Your task to perform on an android device: turn on javascript in the chrome app Image 0: 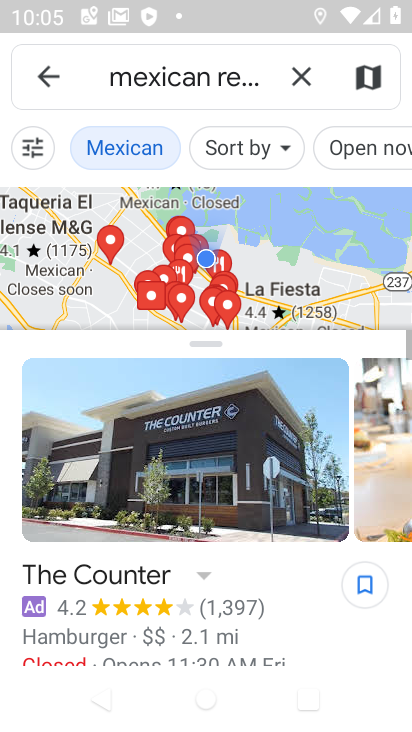
Step 0: press home button
Your task to perform on an android device: turn on javascript in the chrome app Image 1: 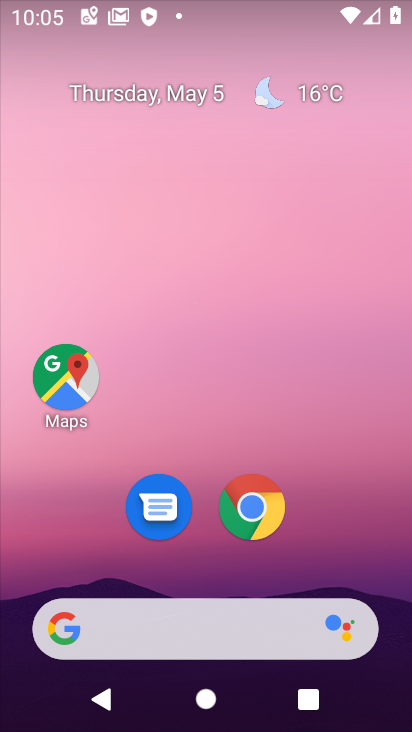
Step 1: click (243, 513)
Your task to perform on an android device: turn on javascript in the chrome app Image 2: 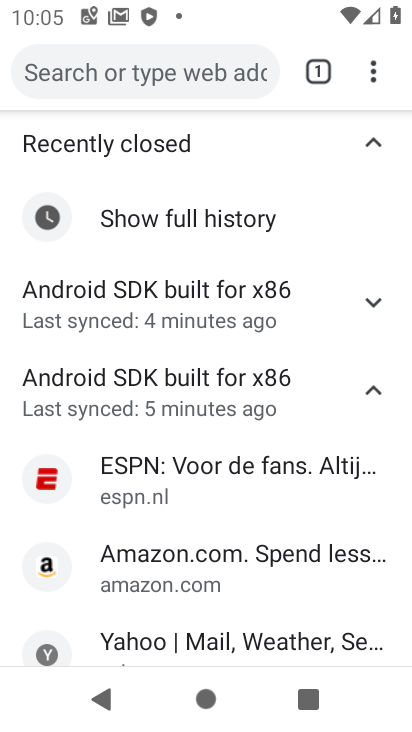
Step 2: click (377, 73)
Your task to perform on an android device: turn on javascript in the chrome app Image 3: 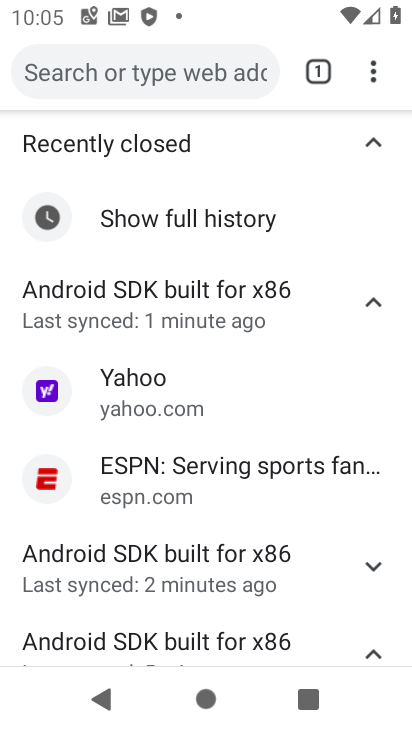
Step 3: click (370, 80)
Your task to perform on an android device: turn on javascript in the chrome app Image 4: 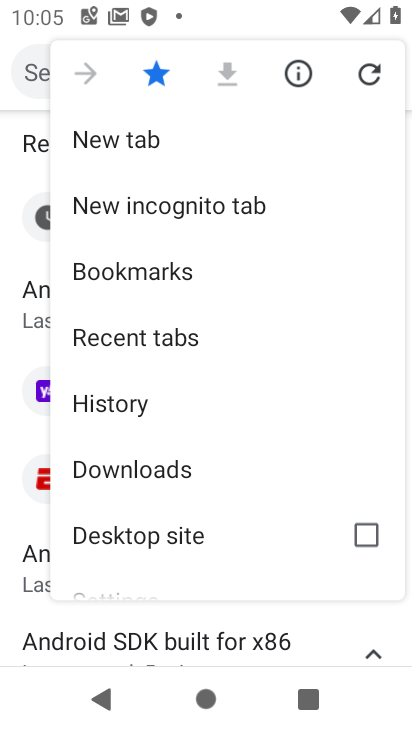
Step 4: drag from (154, 519) to (143, 192)
Your task to perform on an android device: turn on javascript in the chrome app Image 5: 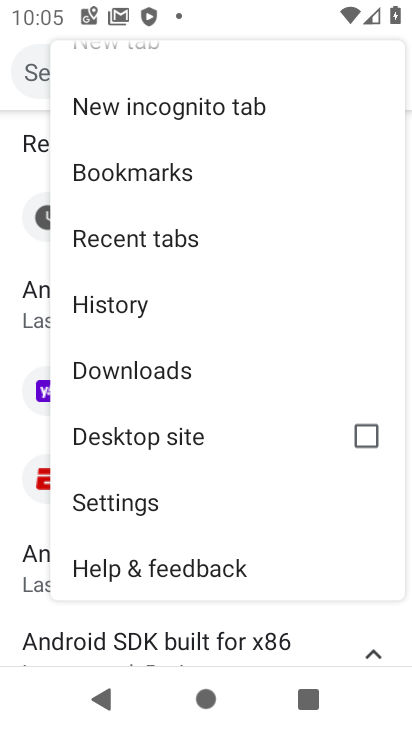
Step 5: click (123, 508)
Your task to perform on an android device: turn on javascript in the chrome app Image 6: 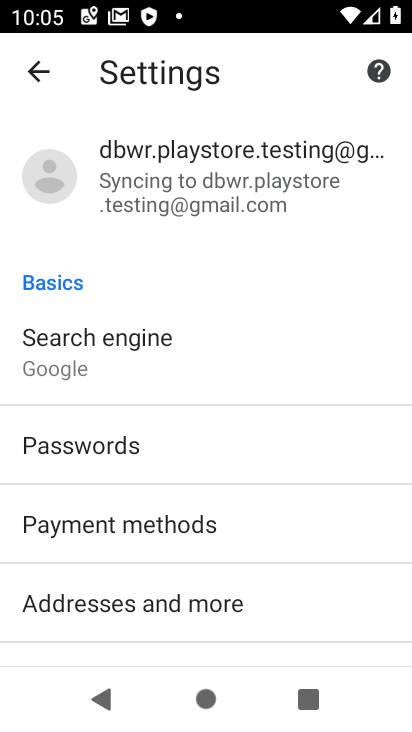
Step 6: drag from (111, 589) to (105, 210)
Your task to perform on an android device: turn on javascript in the chrome app Image 7: 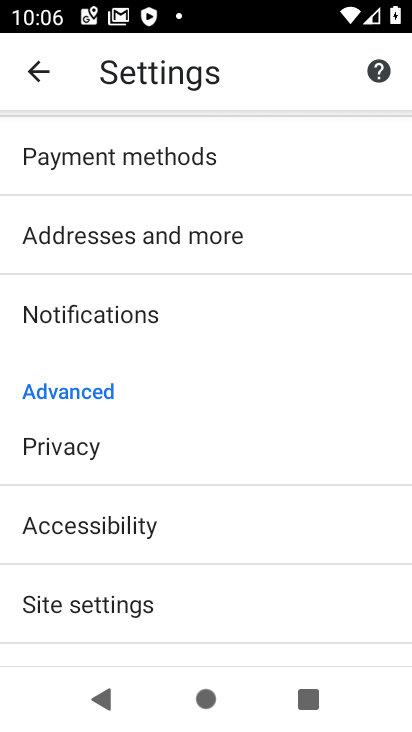
Step 7: click (86, 603)
Your task to perform on an android device: turn on javascript in the chrome app Image 8: 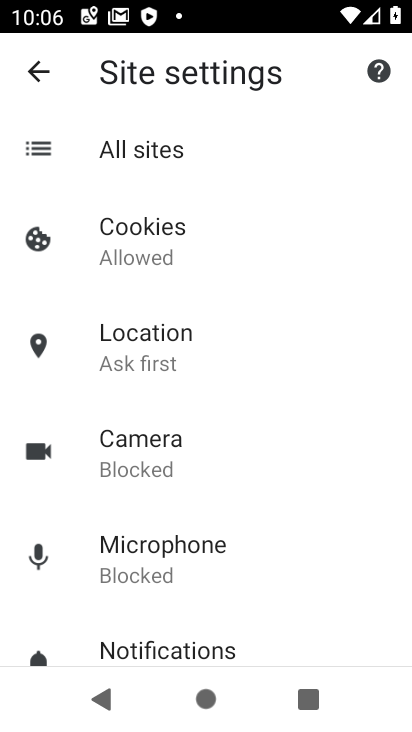
Step 8: drag from (168, 614) to (154, 258)
Your task to perform on an android device: turn on javascript in the chrome app Image 9: 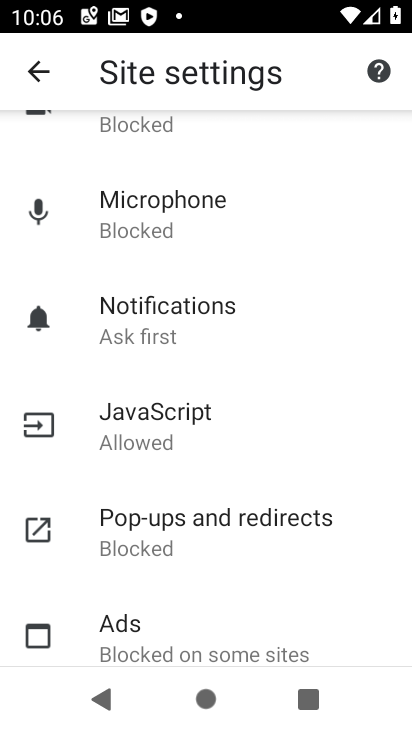
Step 9: click (150, 421)
Your task to perform on an android device: turn on javascript in the chrome app Image 10: 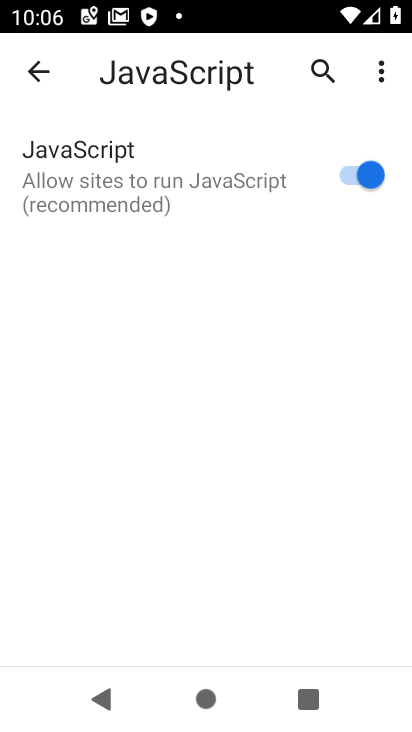
Step 10: task complete